Your task to perform on an android device: check data usage Image 0: 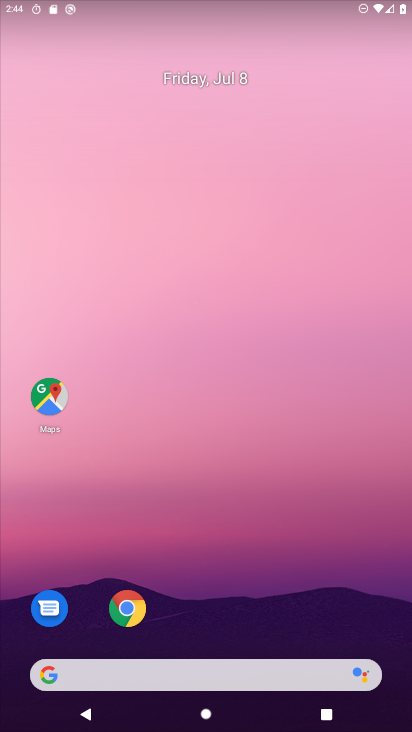
Step 0: drag from (225, 721) to (216, 68)
Your task to perform on an android device: check data usage Image 1: 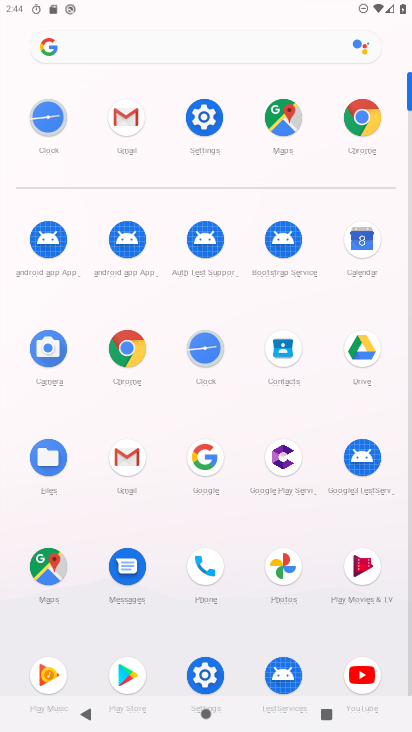
Step 1: click (206, 117)
Your task to perform on an android device: check data usage Image 2: 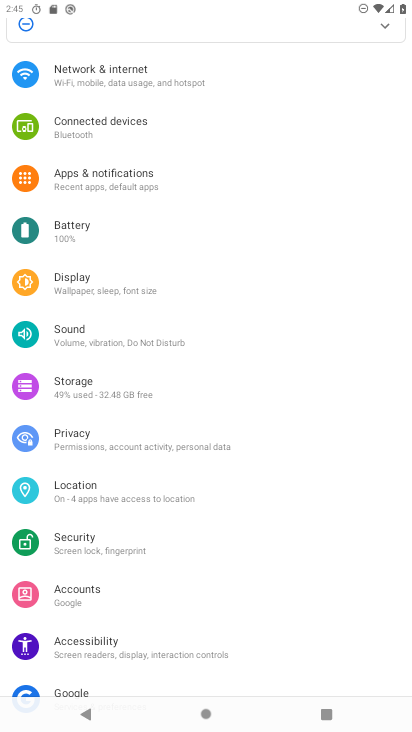
Step 2: click (76, 78)
Your task to perform on an android device: check data usage Image 3: 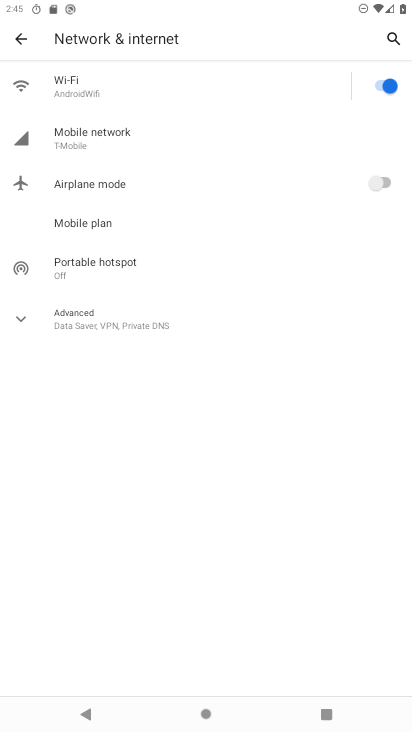
Step 3: click (69, 136)
Your task to perform on an android device: check data usage Image 4: 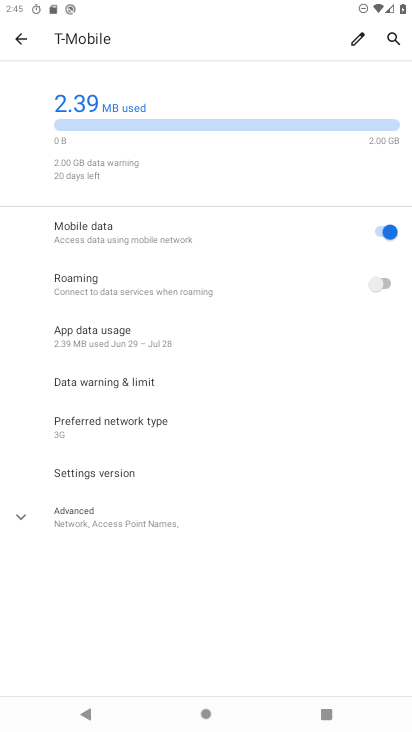
Step 4: click (98, 335)
Your task to perform on an android device: check data usage Image 5: 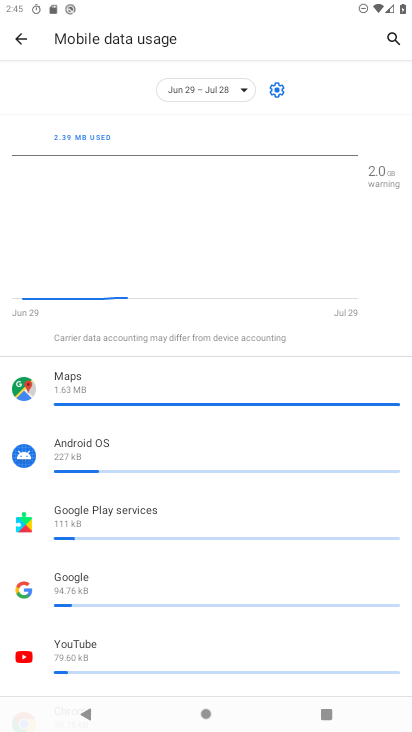
Step 5: task complete